Your task to perform on an android device: read, delete, or share a saved page in the chrome app Image 0: 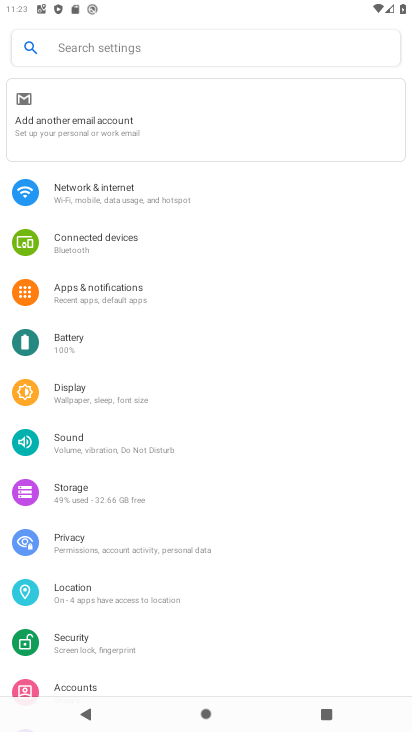
Step 0: press home button
Your task to perform on an android device: read, delete, or share a saved page in the chrome app Image 1: 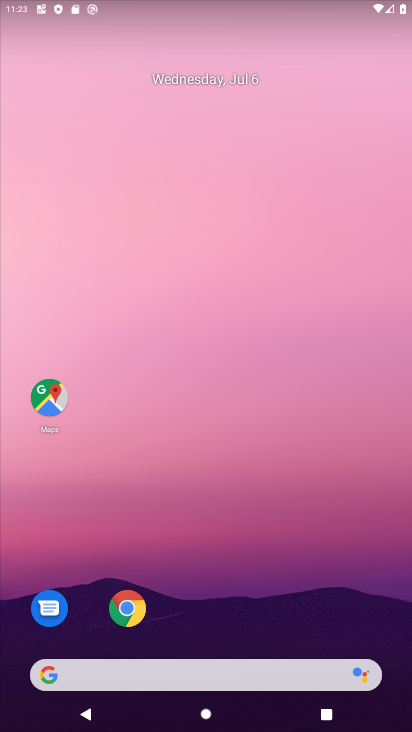
Step 1: drag from (239, 520) to (366, 93)
Your task to perform on an android device: read, delete, or share a saved page in the chrome app Image 2: 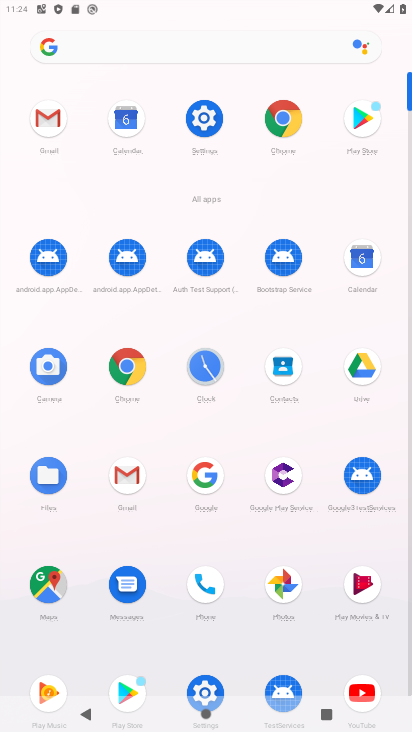
Step 2: click (279, 118)
Your task to perform on an android device: read, delete, or share a saved page in the chrome app Image 3: 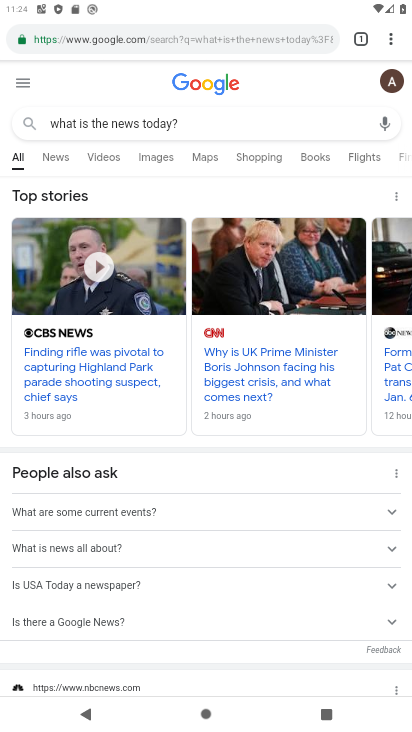
Step 3: drag from (196, 458) to (250, 168)
Your task to perform on an android device: read, delete, or share a saved page in the chrome app Image 4: 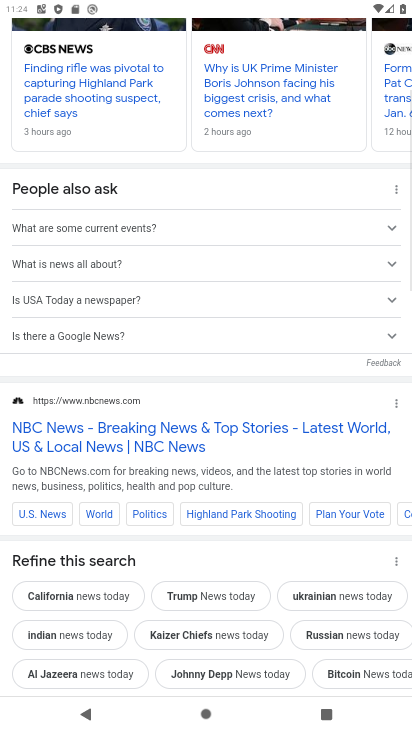
Step 4: drag from (247, 457) to (283, 144)
Your task to perform on an android device: read, delete, or share a saved page in the chrome app Image 5: 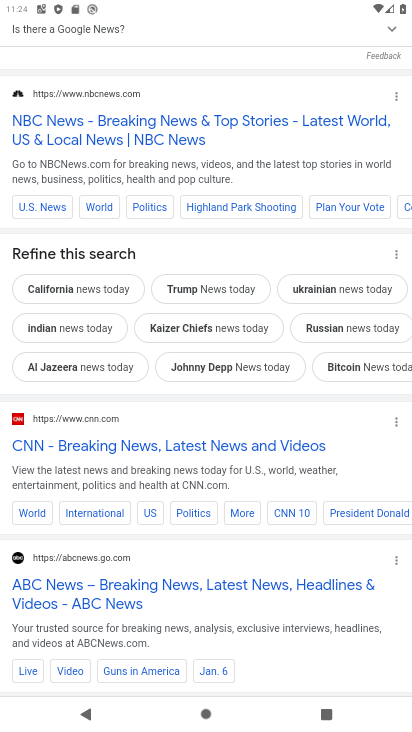
Step 5: drag from (290, 154) to (254, 597)
Your task to perform on an android device: read, delete, or share a saved page in the chrome app Image 6: 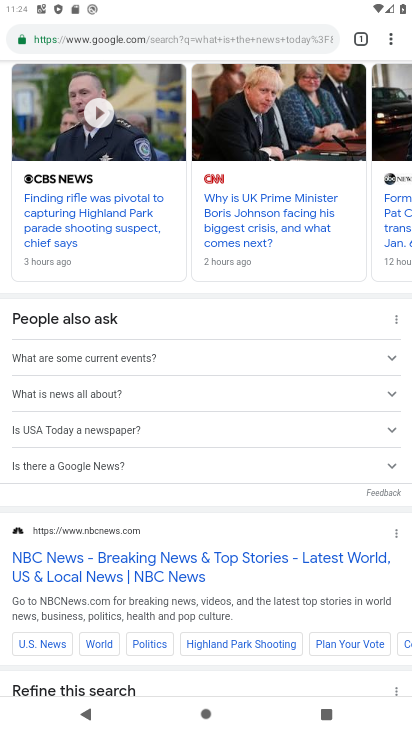
Step 6: drag from (388, 33) to (273, 33)
Your task to perform on an android device: read, delete, or share a saved page in the chrome app Image 7: 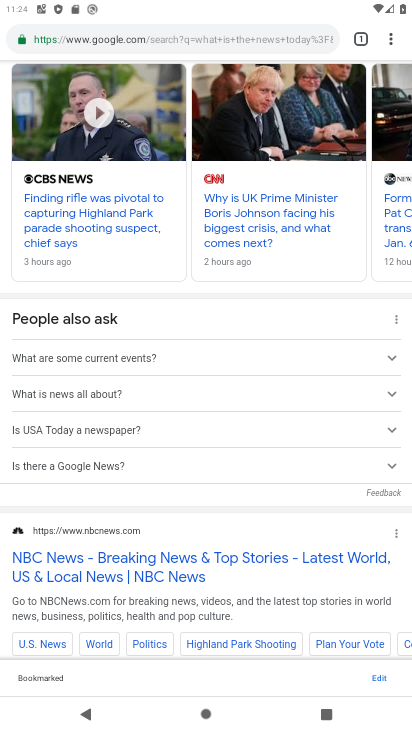
Step 7: drag from (389, 37) to (276, 33)
Your task to perform on an android device: read, delete, or share a saved page in the chrome app Image 8: 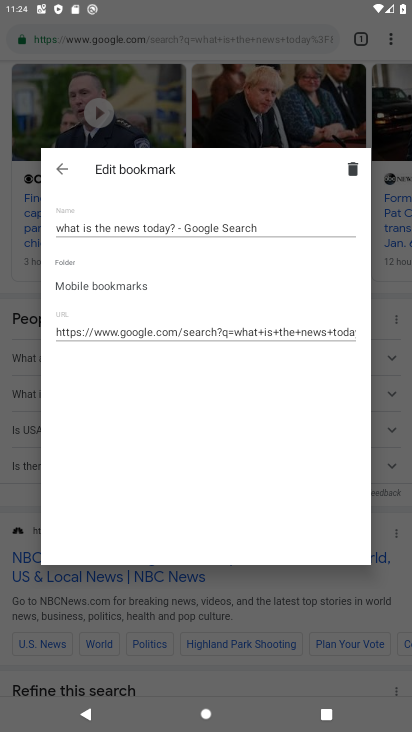
Step 8: click (350, 170)
Your task to perform on an android device: read, delete, or share a saved page in the chrome app Image 9: 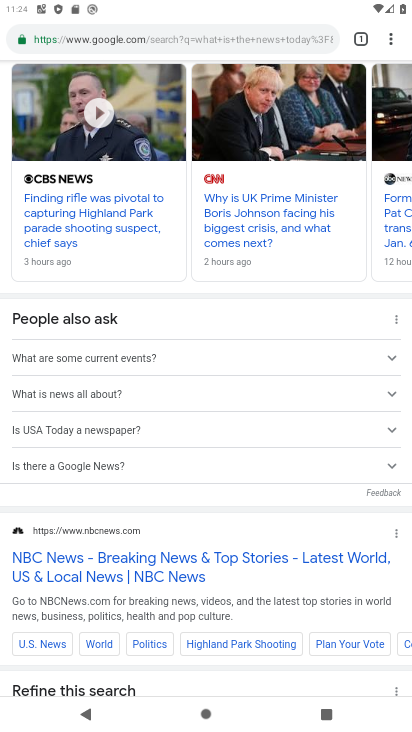
Step 9: task complete